Your task to perform on an android device: What's on my calendar today? Image 0: 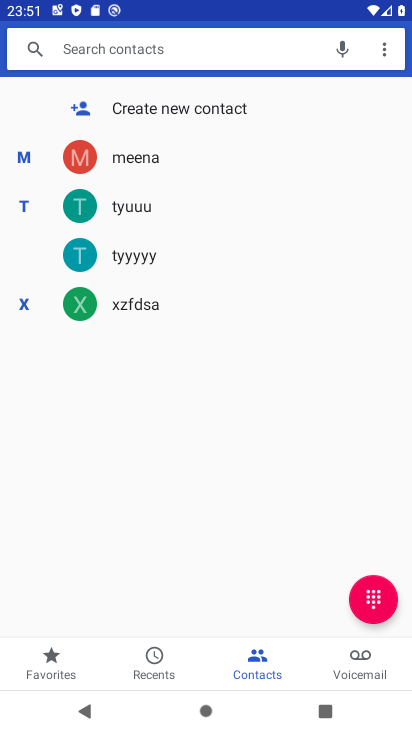
Step 0: click (134, 663)
Your task to perform on an android device: What's on my calendar today? Image 1: 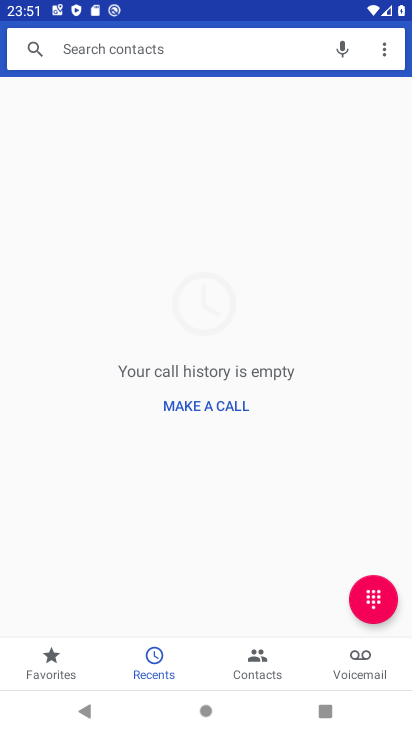
Step 1: press home button
Your task to perform on an android device: What's on my calendar today? Image 2: 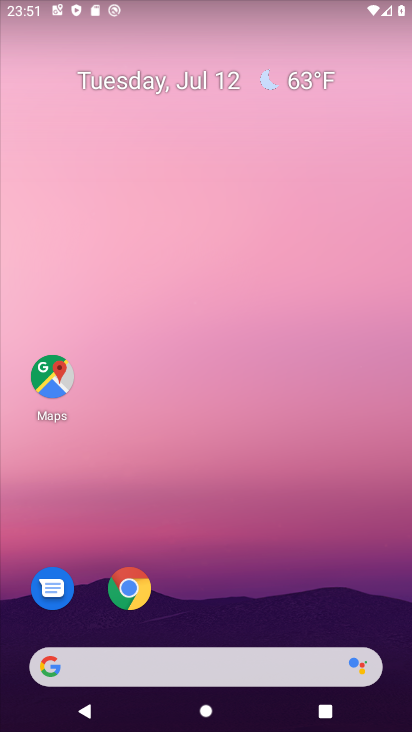
Step 2: click (116, 196)
Your task to perform on an android device: What's on my calendar today? Image 3: 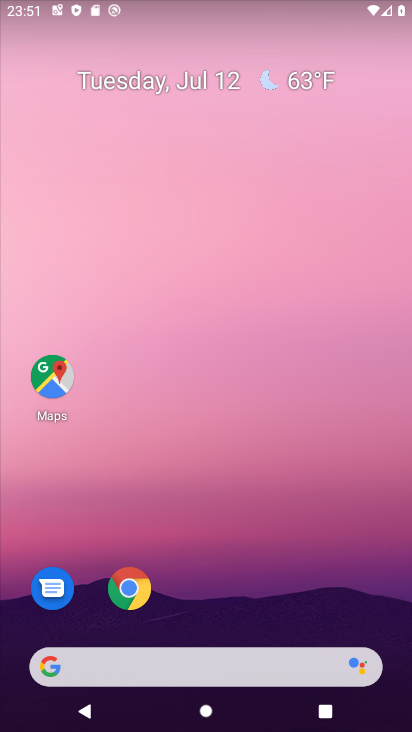
Step 3: drag from (29, 689) to (187, 34)
Your task to perform on an android device: What's on my calendar today? Image 4: 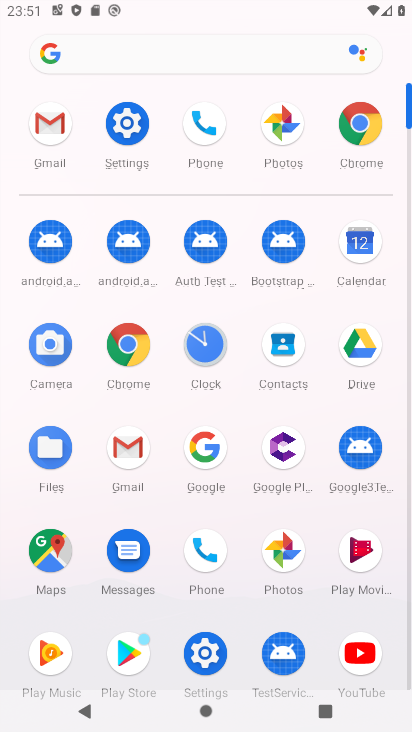
Step 4: click (349, 258)
Your task to perform on an android device: What's on my calendar today? Image 5: 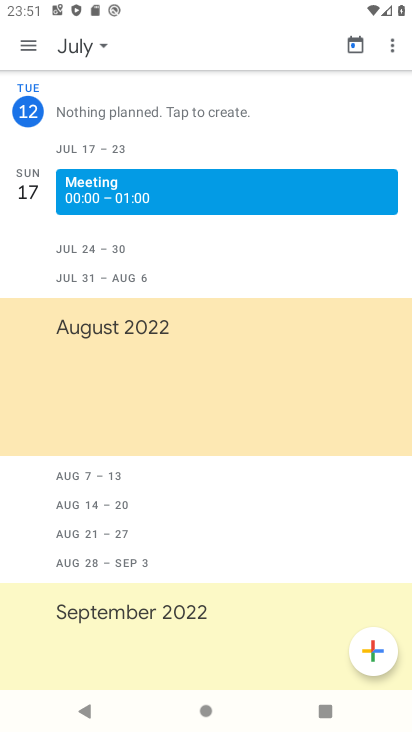
Step 5: click (87, 52)
Your task to perform on an android device: What's on my calendar today? Image 6: 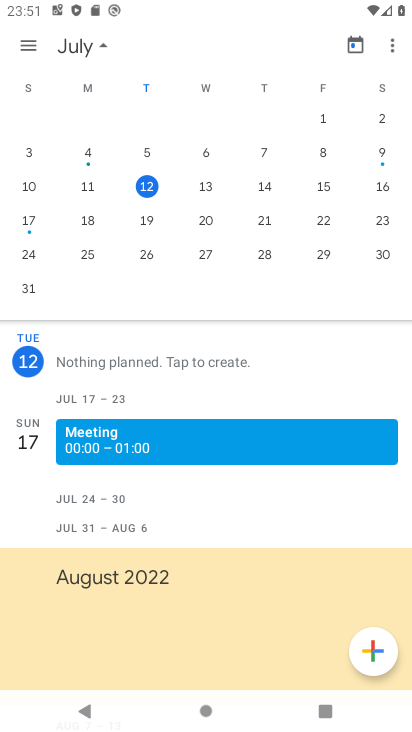
Step 6: task complete